Your task to perform on an android device: Go to privacy settings Image 0: 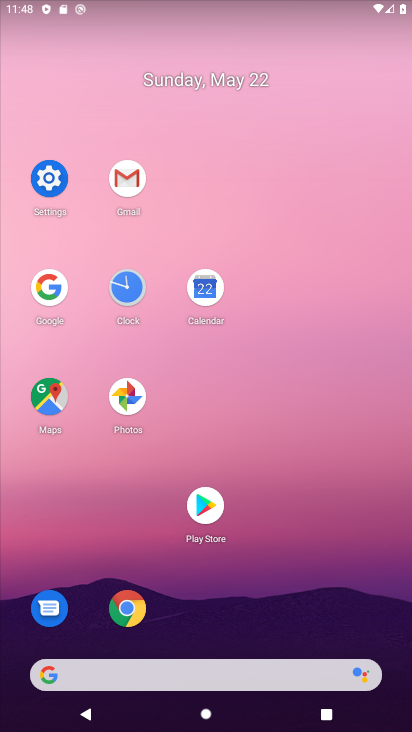
Step 0: click (51, 166)
Your task to perform on an android device: Go to privacy settings Image 1: 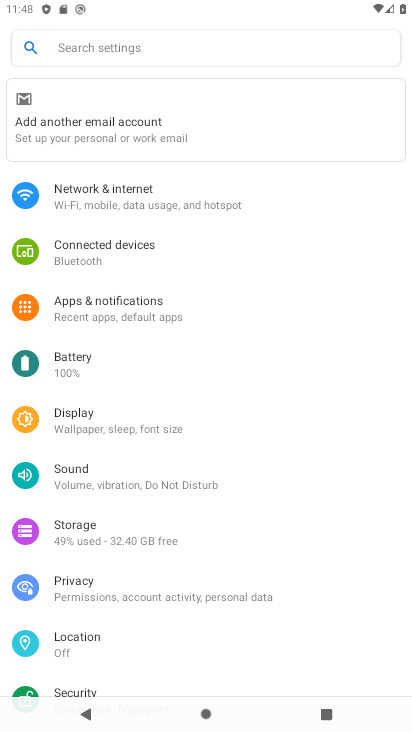
Step 1: click (165, 591)
Your task to perform on an android device: Go to privacy settings Image 2: 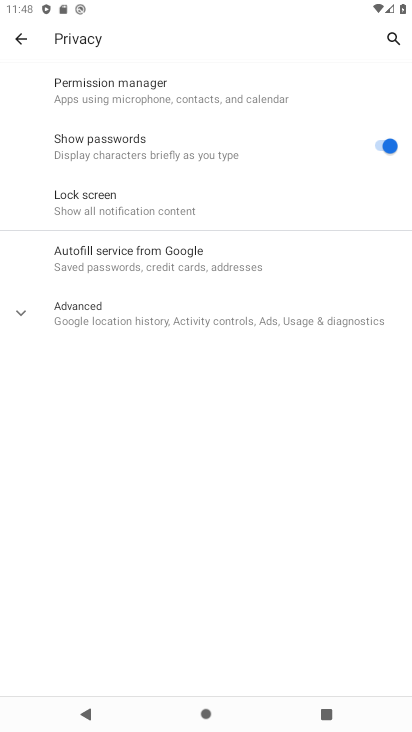
Step 2: task complete